Your task to perform on an android device: turn off smart reply in the gmail app Image 0: 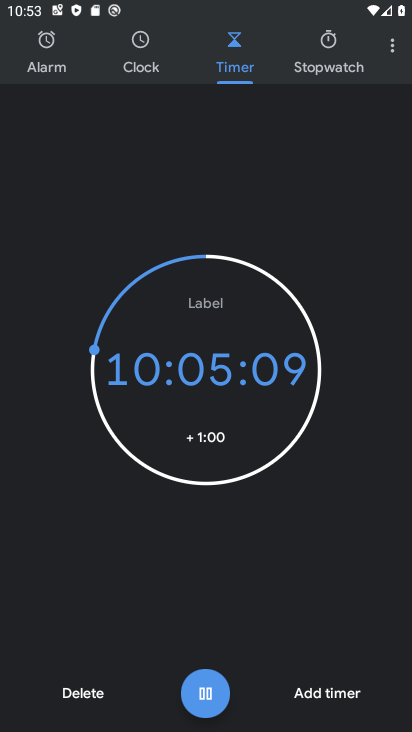
Step 0: press home button
Your task to perform on an android device: turn off smart reply in the gmail app Image 1: 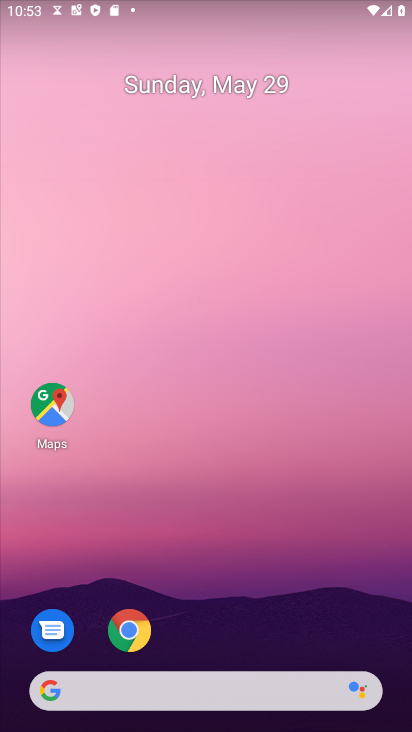
Step 1: drag from (292, 588) to (368, 170)
Your task to perform on an android device: turn off smart reply in the gmail app Image 2: 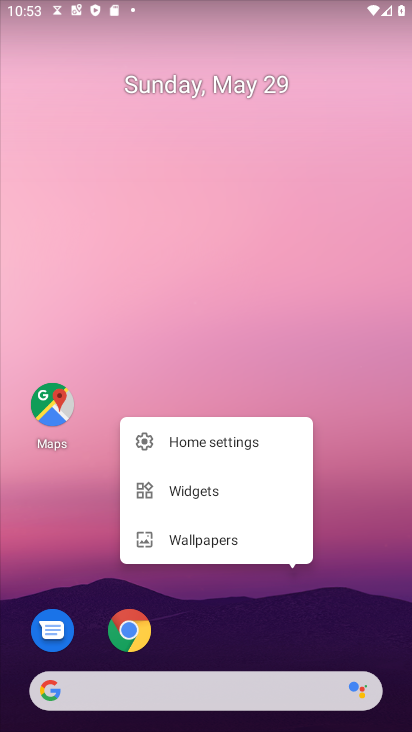
Step 2: click (209, 318)
Your task to perform on an android device: turn off smart reply in the gmail app Image 3: 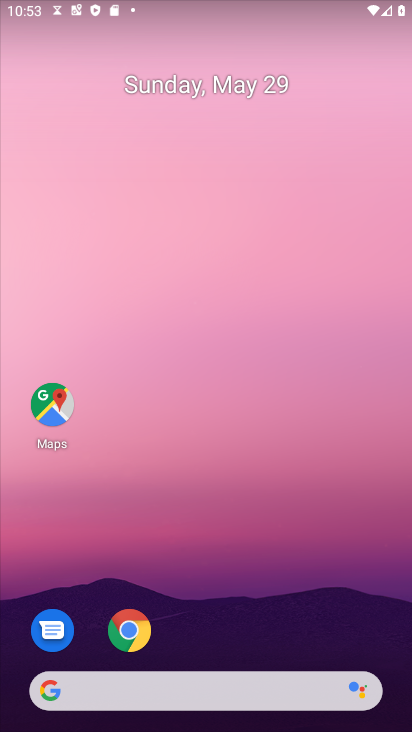
Step 3: click (211, 317)
Your task to perform on an android device: turn off smart reply in the gmail app Image 4: 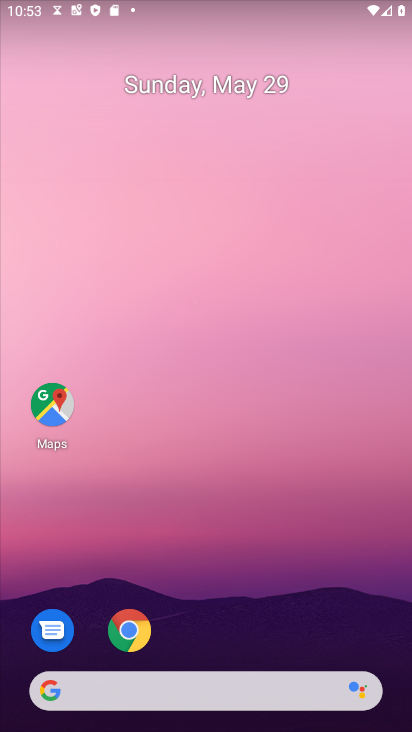
Step 4: drag from (260, 679) to (341, 21)
Your task to perform on an android device: turn off smart reply in the gmail app Image 5: 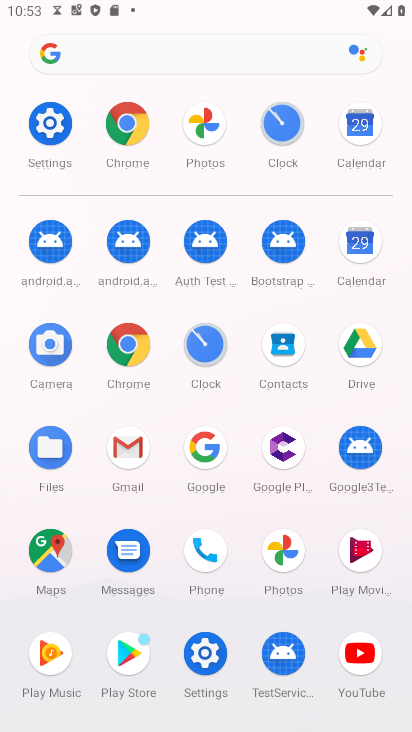
Step 5: click (122, 444)
Your task to perform on an android device: turn off smart reply in the gmail app Image 6: 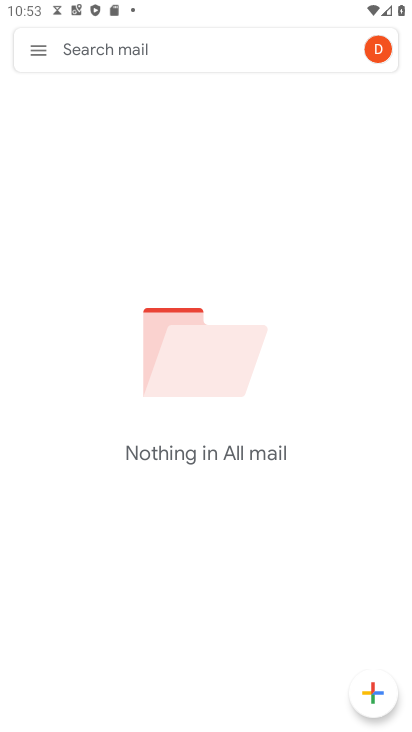
Step 6: click (39, 62)
Your task to perform on an android device: turn off smart reply in the gmail app Image 7: 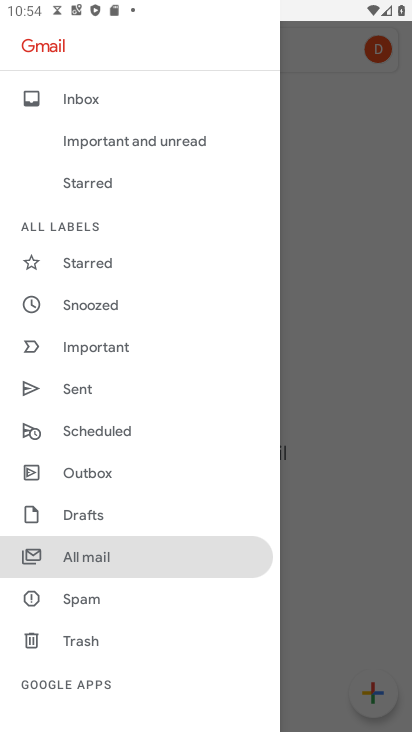
Step 7: drag from (182, 688) to (187, 426)
Your task to perform on an android device: turn off smart reply in the gmail app Image 8: 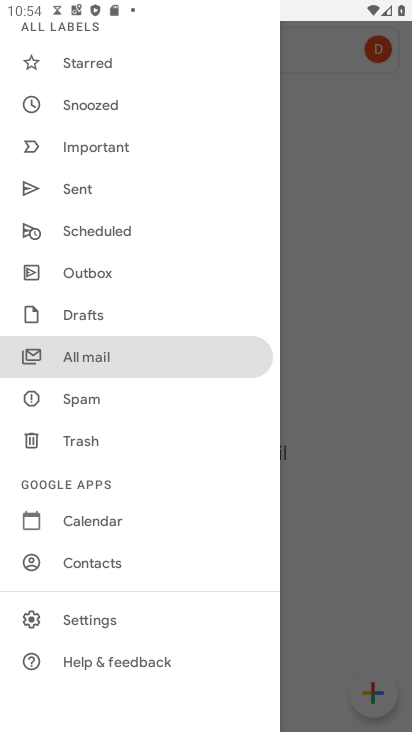
Step 8: click (84, 610)
Your task to perform on an android device: turn off smart reply in the gmail app Image 9: 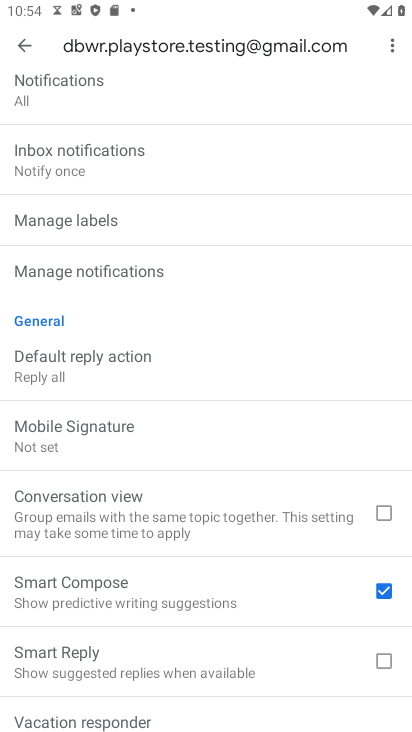
Step 9: task complete